Your task to perform on an android device: Go to Google Image 0: 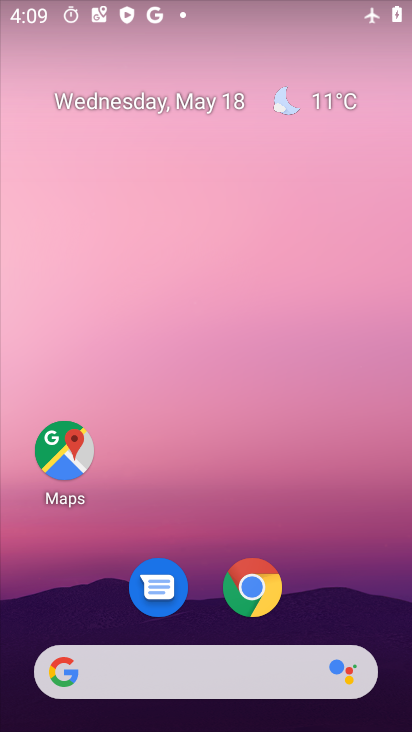
Step 0: drag from (258, 563) to (269, 228)
Your task to perform on an android device: Go to Google Image 1: 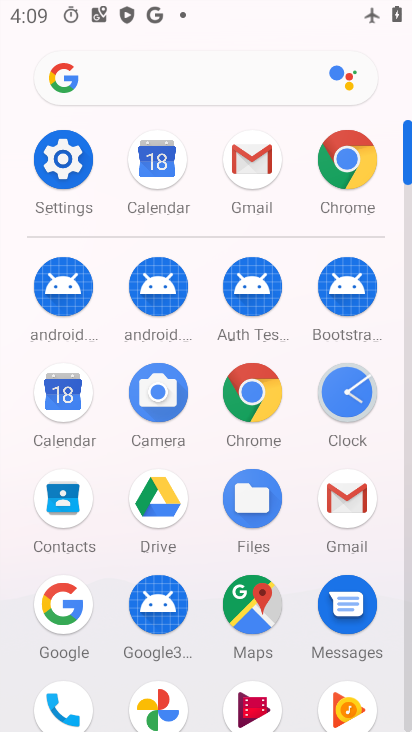
Step 1: click (76, 594)
Your task to perform on an android device: Go to Google Image 2: 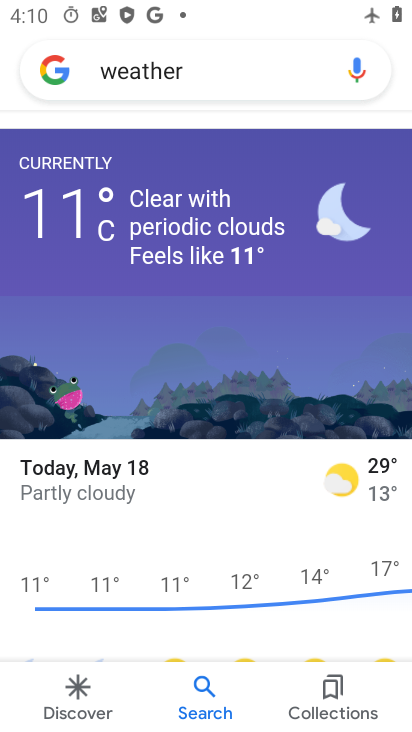
Step 2: task complete